Your task to perform on an android device: Open eBay Image 0: 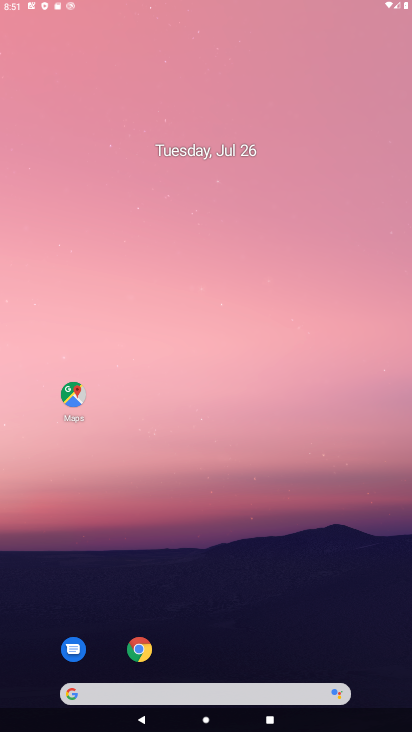
Step 0: click (263, 353)
Your task to perform on an android device: Open eBay Image 1: 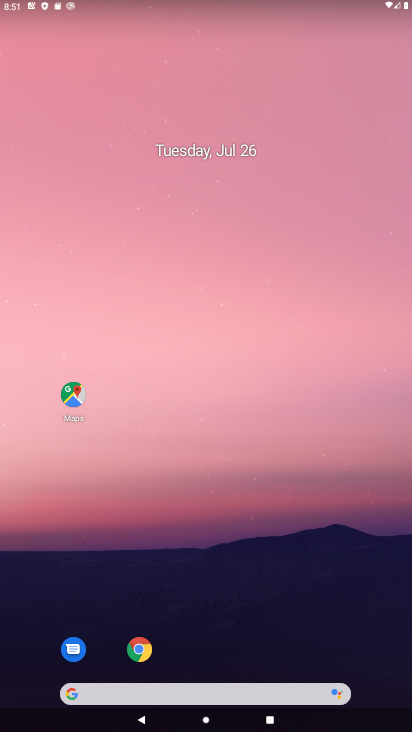
Step 1: click (70, 386)
Your task to perform on an android device: Open eBay Image 2: 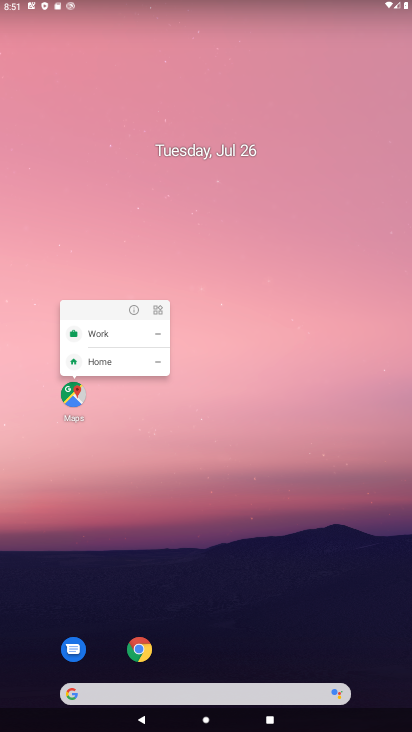
Step 2: click (132, 310)
Your task to perform on an android device: Open eBay Image 3: 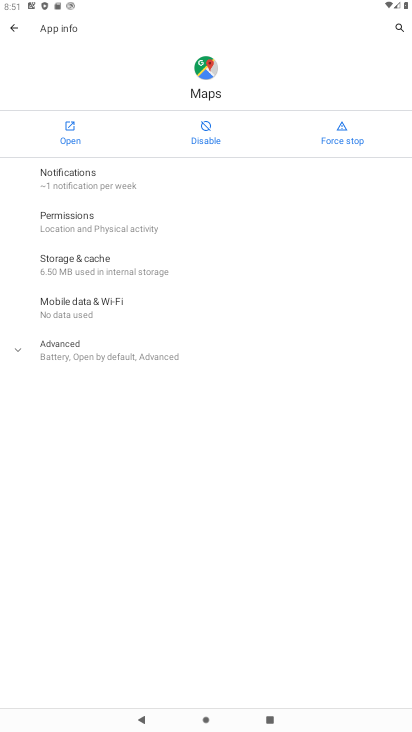
Step 3: click (47, 256)
Your task to perform on an android device: Open eBay Image 4: 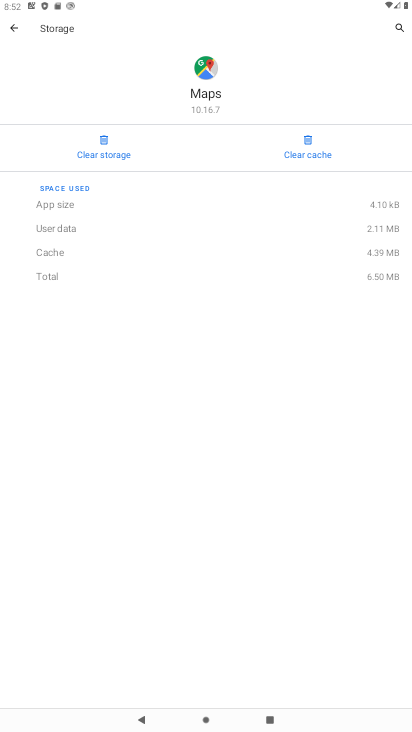
Step 4: click (98, 157)
Your task to perform on an android device: Open eBay Image 5: 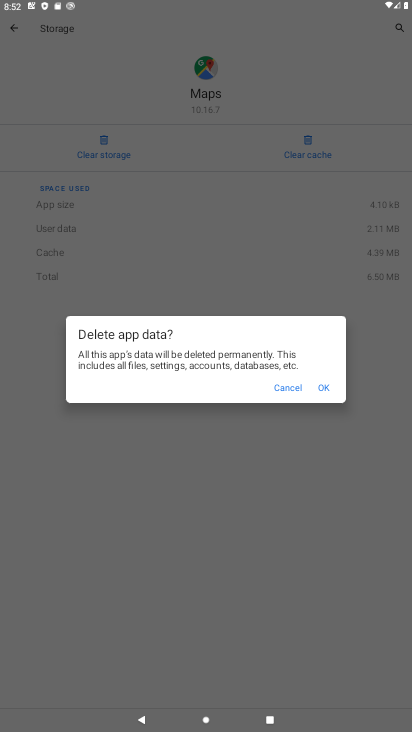
Step 5: click (282, 391)
Your task to perform on an android device: Open eBay Image 6: 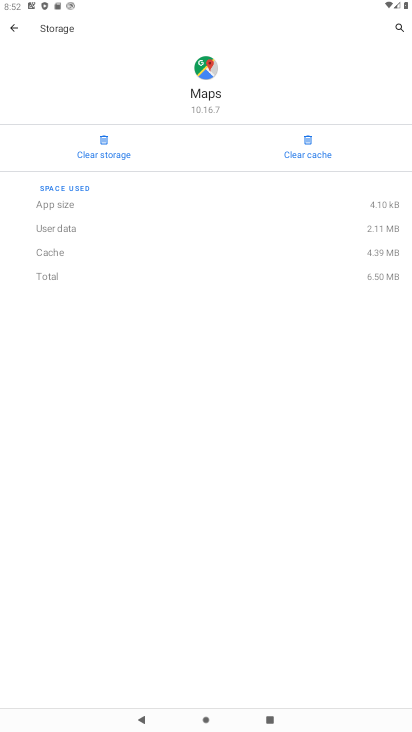
Step 6: click (10, 22)
Your task to perform on an android device: Open eBay Image 7: 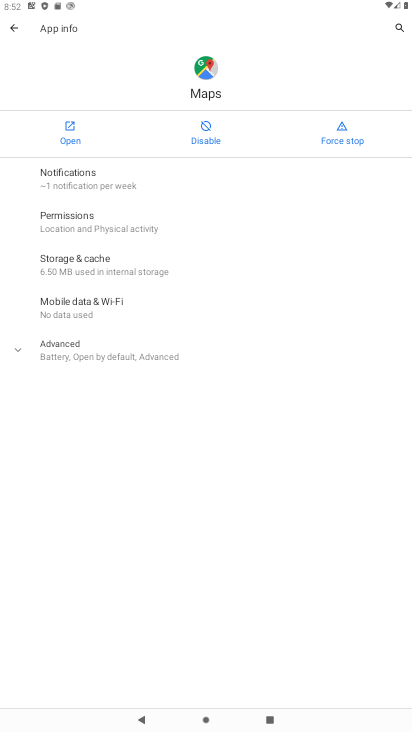
Step 7: click (9, 22)
Your task to perform on an android device: Open eBay Image 8: 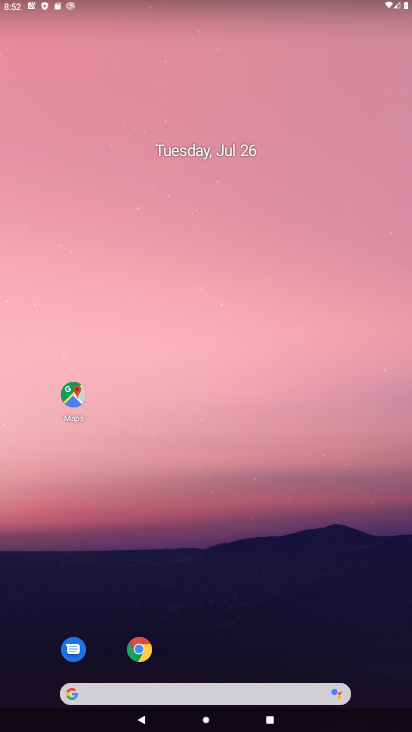
Step 8: click (73, 388)
Your task to perform on an android device: Open eBay Image 9: 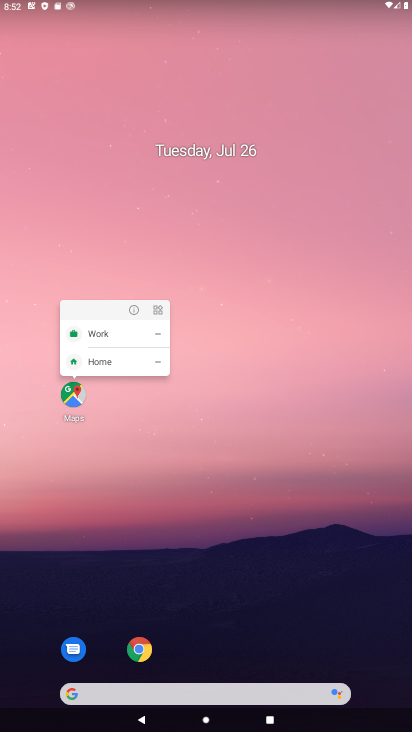
Step 9: drag from (182, 622) to (273, 151)
Your task to perform on an android device: Open eBay Image 10: 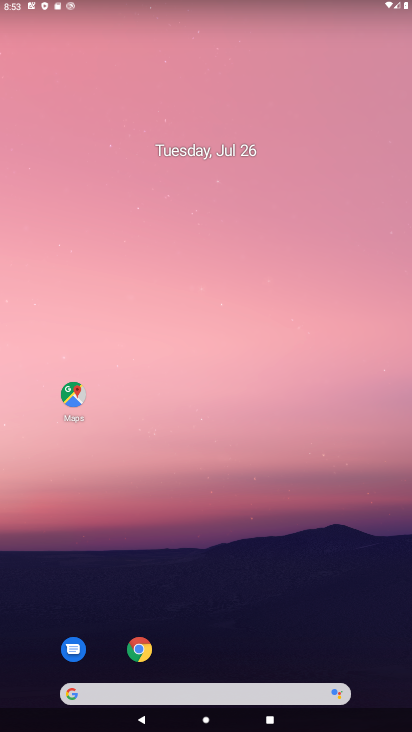
Step 10: drag from (207, 578) to (279, 54)
Your task to perform on an android device: Open eBay Image 11: 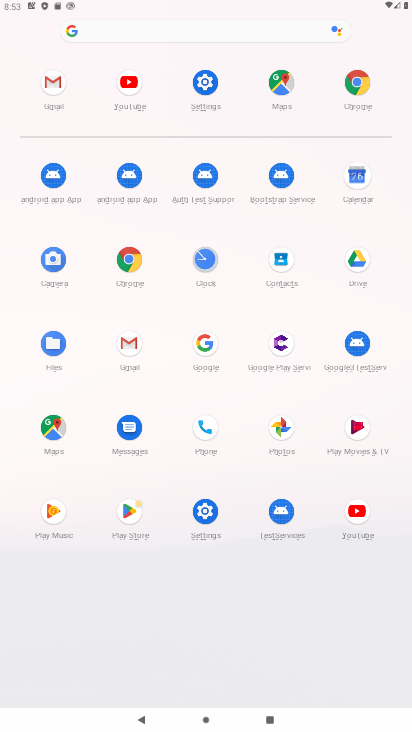
Step 11: click (149, 25)
Your task to perform on an android device: Open eBay Image 12: 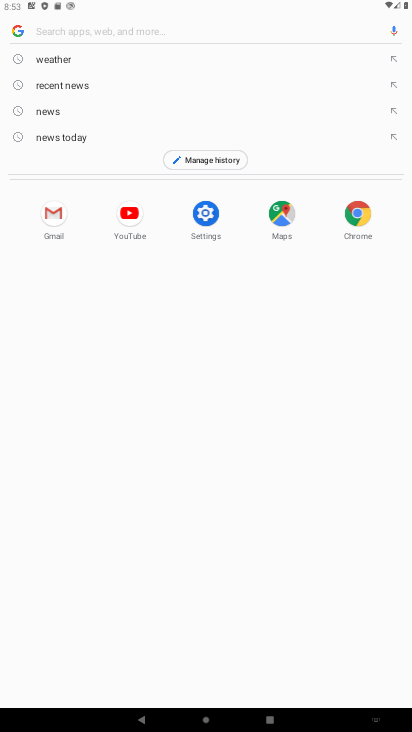
Step 12: type "eBay"
Your task to perform on an android device: Open eBay Image 13: 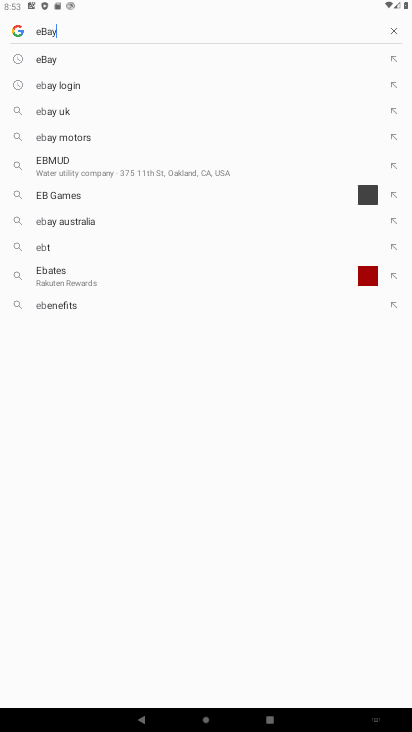
Step 13: type ""
Your task to perform on an android device: Open eBay Image 14: 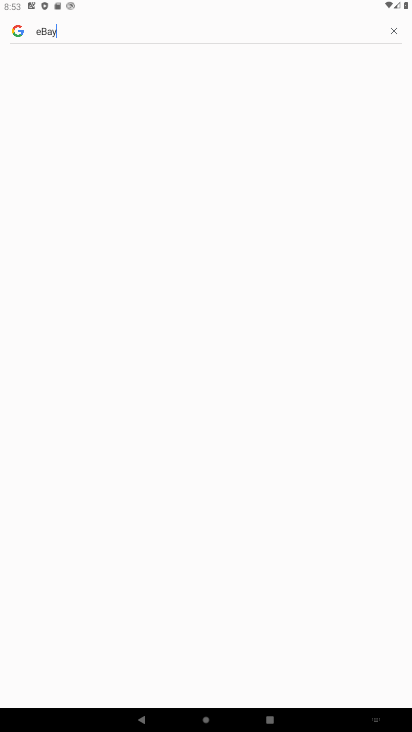
Step 14: drag from (214, 429) to (242, 228)
Your task to perform on an android device: Open eBay Image 15: 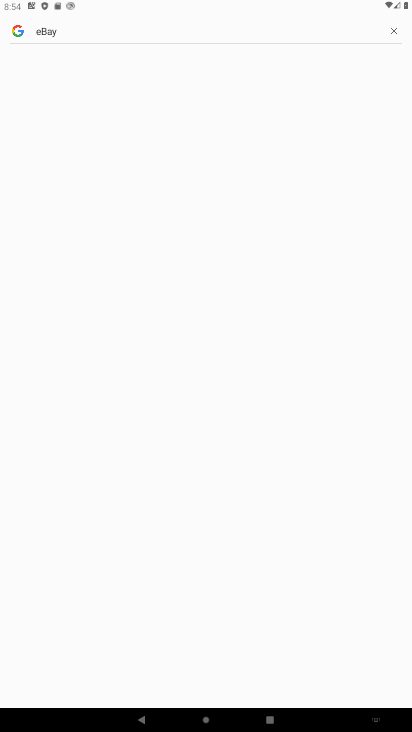
Step 15: drag from (37, 410) to (29, 14)
Your task to perform on an android device: Open eBay Image 16: 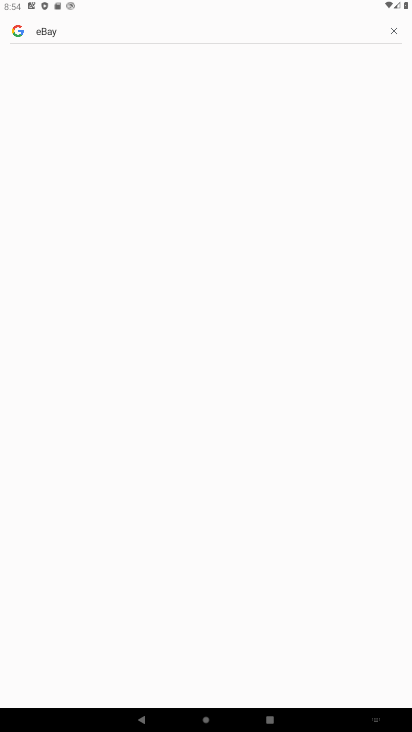
Step 16: drag from (179, 514) to (261, 30)
Your task to perform on an android device: Open eBay Image 17: 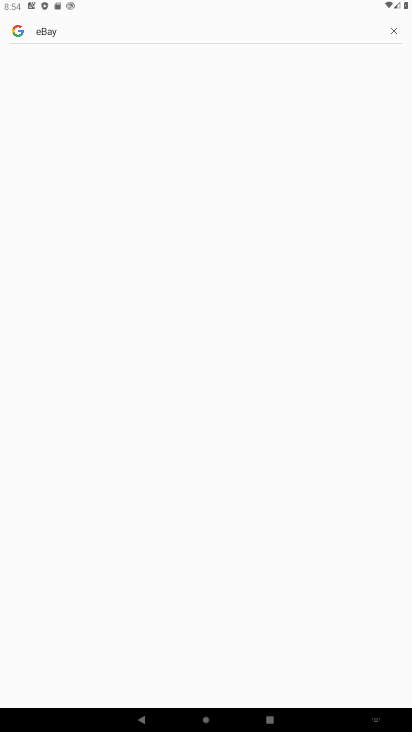
Step 17: drag from (151, 154) to (195, 263)
Your task to perform on an android device: Open eBay Image 18: 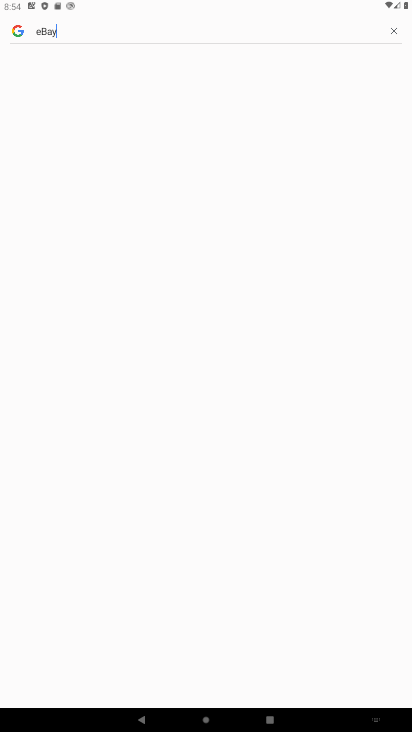
Step 18: click (195, 118)
Your task to perform on an android device: Open eBay Image 19: 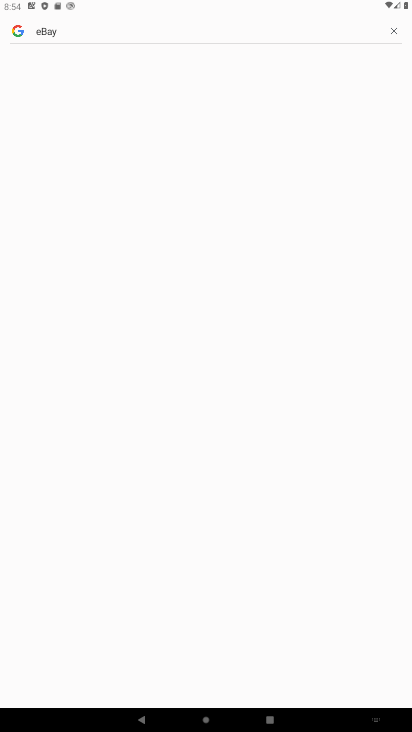
Step 19: click (185, 112)
Your task to perform on an android device: Open eBay Image 20: 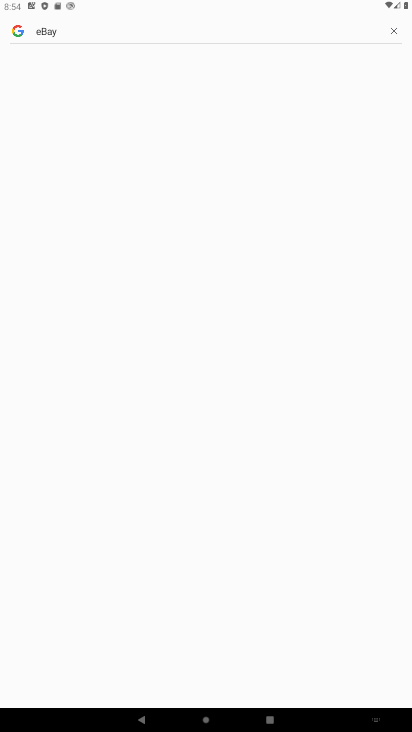
Step 20: task complete